Your task to perform on an android device: Open settings on Google Maps Image 0: 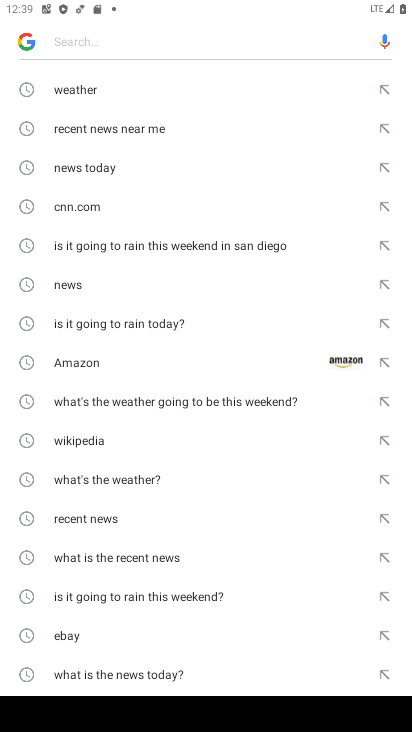
Step 0: press home button
Your task to perform on an android device: Open settings on Google Maps Image 1: 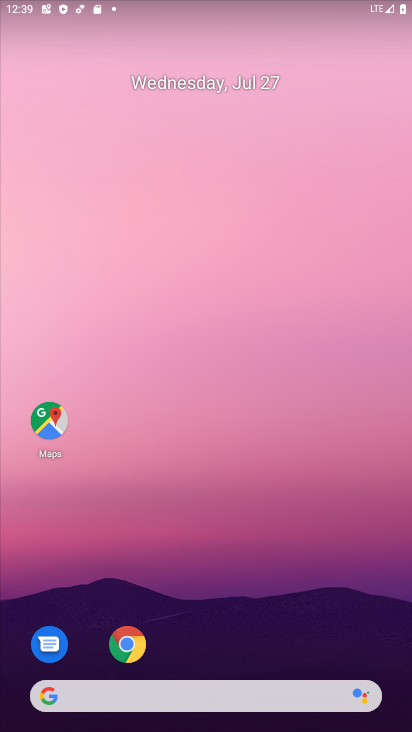
Step 1: drag from (202, 662) to (186, 46)
Your task to perform on an android device: Open settings on Google Maps Image 2: 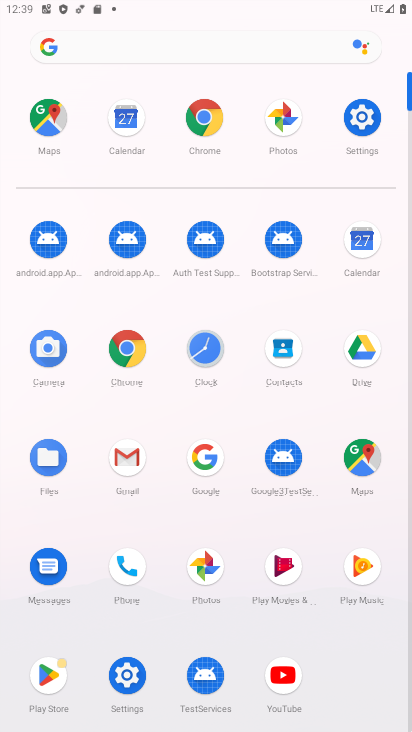
Step 2: click (368, 472)
Your task to perform on an android device: Open settings on Google Maps Image 3: 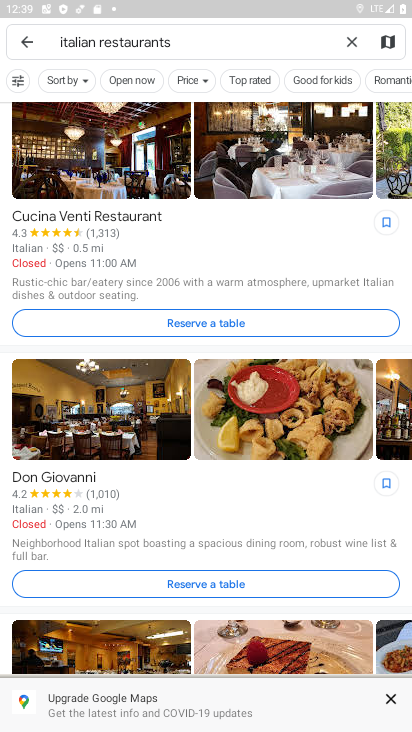
Step 3: click (26, 47)
Your task to perform on an android device: Open settings on Google Maps Image 4: 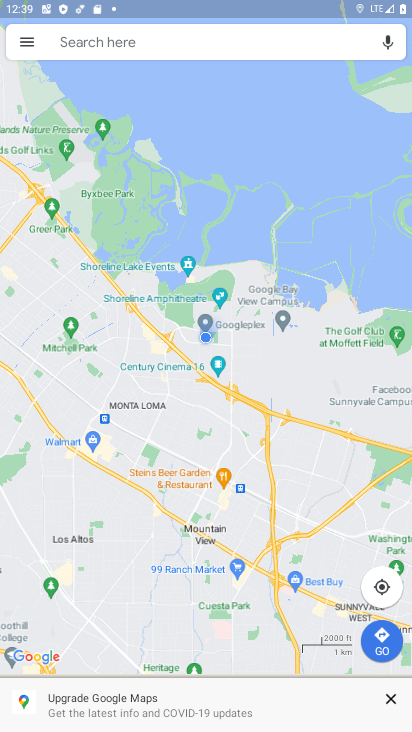
Step 4: click (24, 45)
Your task to perform on an android device: Open settings on Google Maps Image 5: 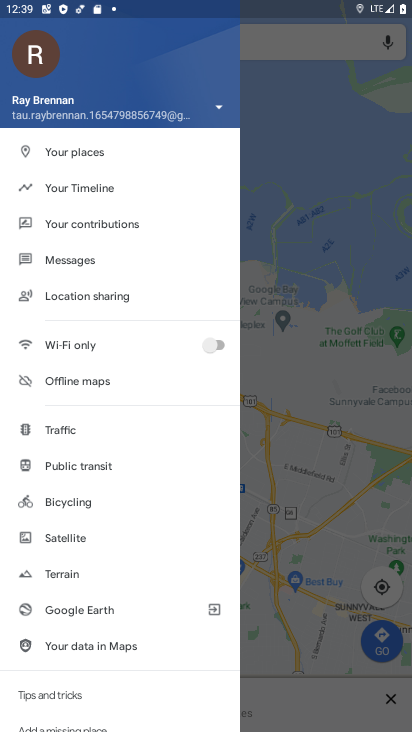
Step 5: drag from (65, 639) to (99, 420)
Your task to perform on an android device: Open settings on Google Maps Image 6: 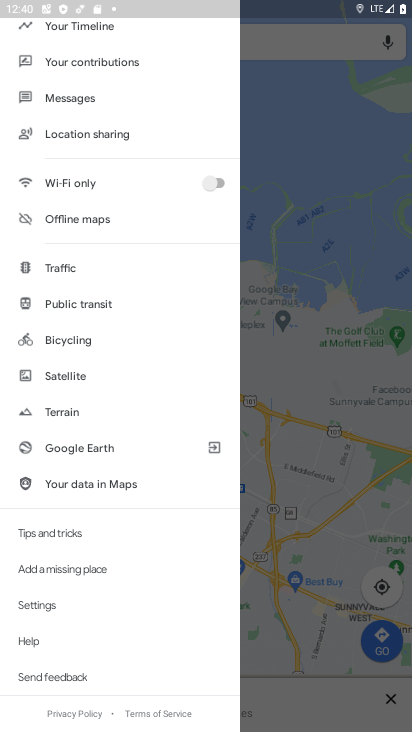
Step 6: click (48, 611)
Your task to perform on an android device: Open settings on Google Maps Image 7: 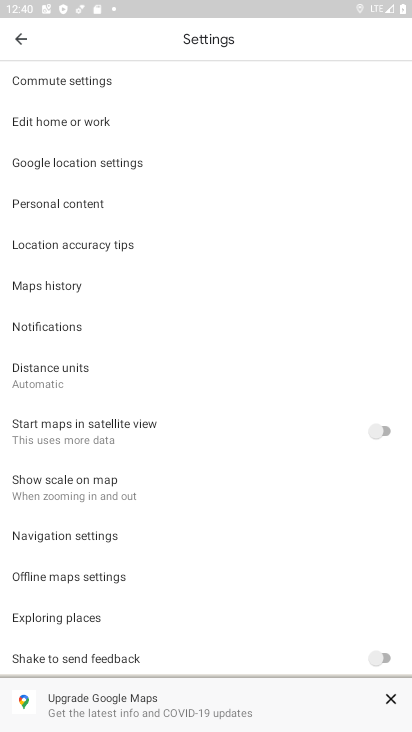
Step 7: task complete